Your task to perform on an android device: toggle pop-ups in chrome Image 0: 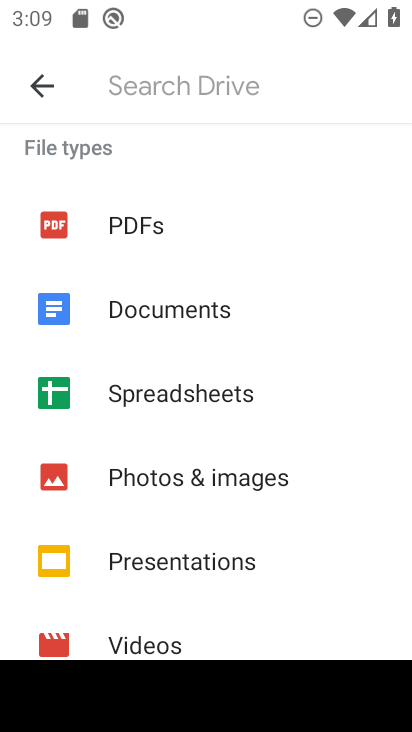
Step 0: press home button
Your task to perform on an android device: toggle pop-ups in chrome Image 1: 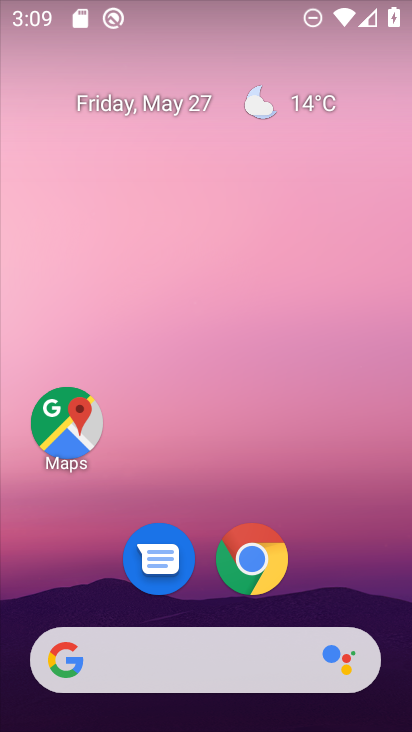
Step 1: drag from (346, 569) to (292, 134)
Your task to perform on an android device: toggle pop-ups in chrome Image 2: 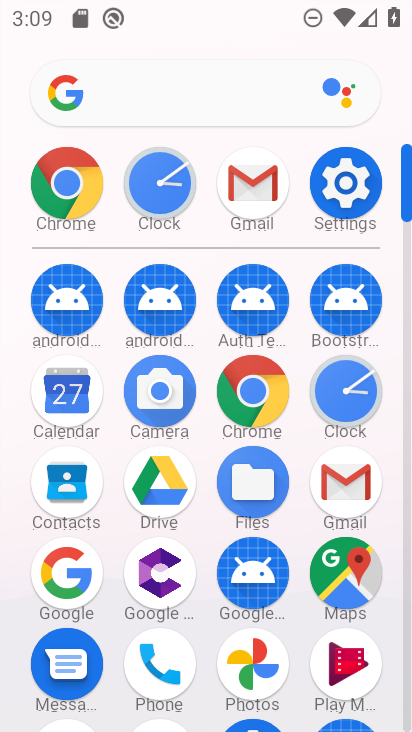
Step 2: click (61, 197)
Your task to perform on an android device: toggle pop-ups in chrome Image 3: 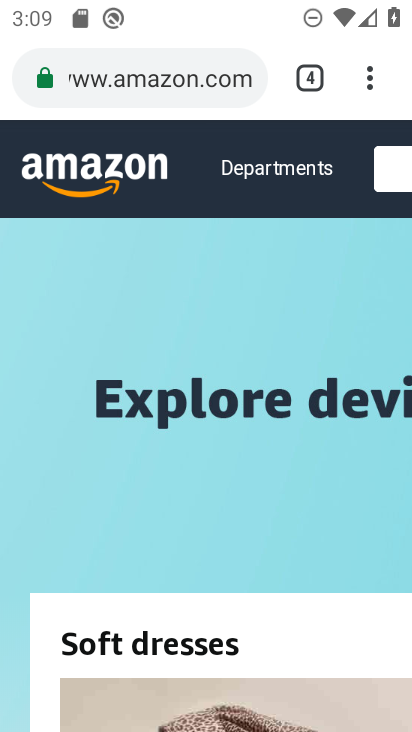
Step 3: click (364, 83)
Your task to perform on an android device: toggle pop-ups in chrome Image 4: 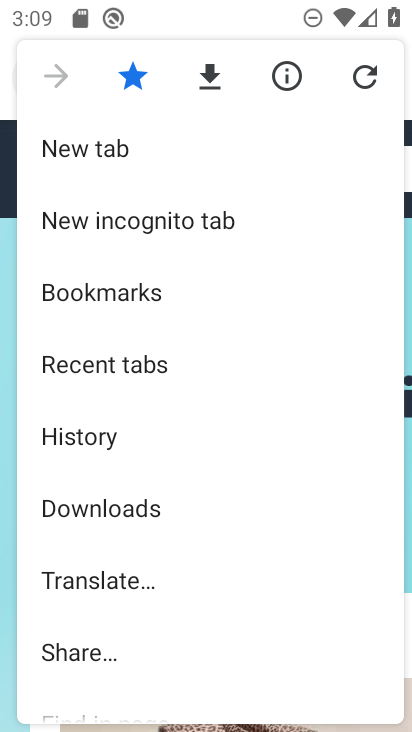
Step 4: drag from (202, 625) to (228, 234)
Your task to perform on an android device: toggle pop-ups in chrome Image 5: 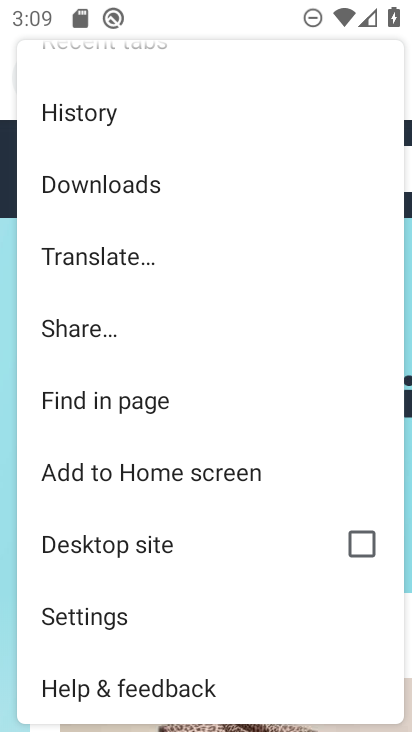
Step 5: click (86, 614)
Your task to perform on an android device: toggle pop-ups in chrome Image 6: 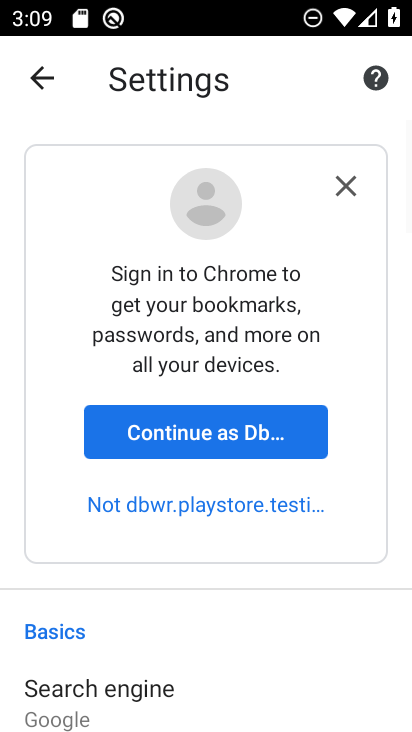
Step 6: drag from (279, 668) to (305, 116)
Your task to perform on an android device: toggle pop-ups in chrome Image 7: 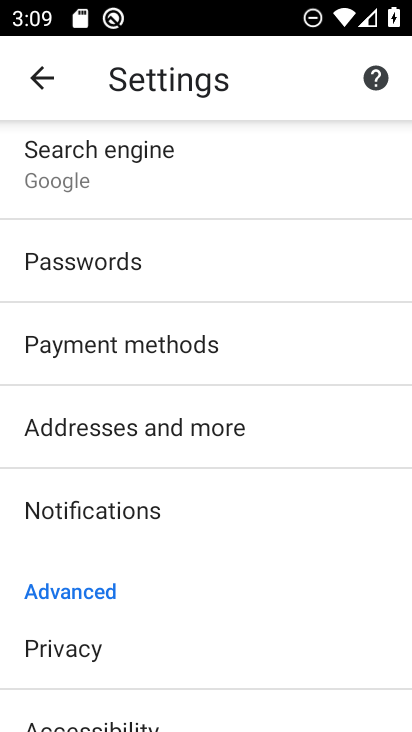
Step 7: drag from (304, 586) to (272, 141)
Your task to perform on an android device: toggle pop-ups in chrome Image 8: 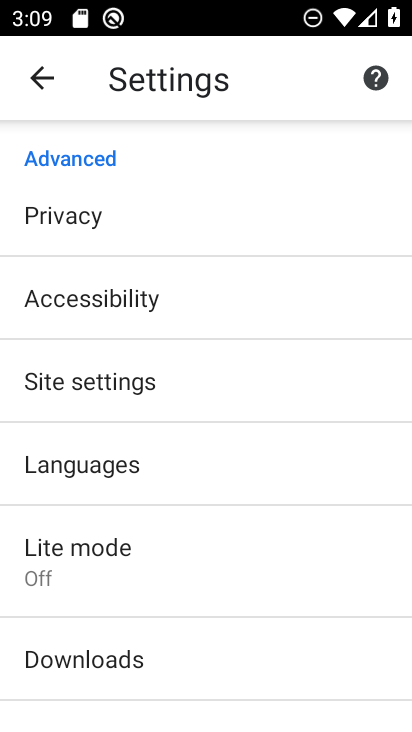
Step 8: click (168, 382)
Your task to perform on an android device: toggle pop-ups in chrome Image 9: 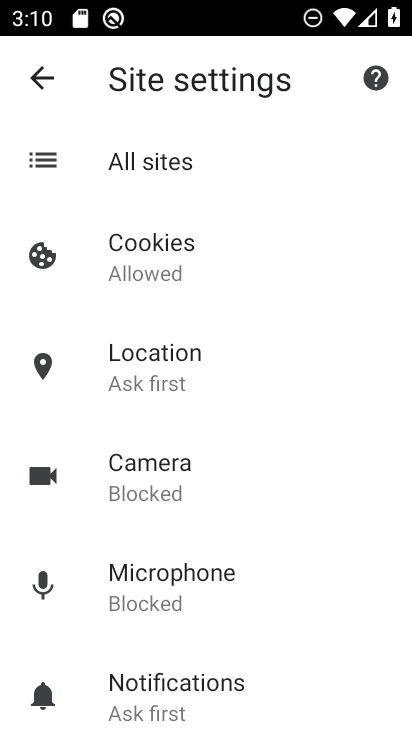
Step 9: drag from (312, 485) to (299, 201)
Your task to perform on an android device: toggle pop-ups in chrome Image 10: 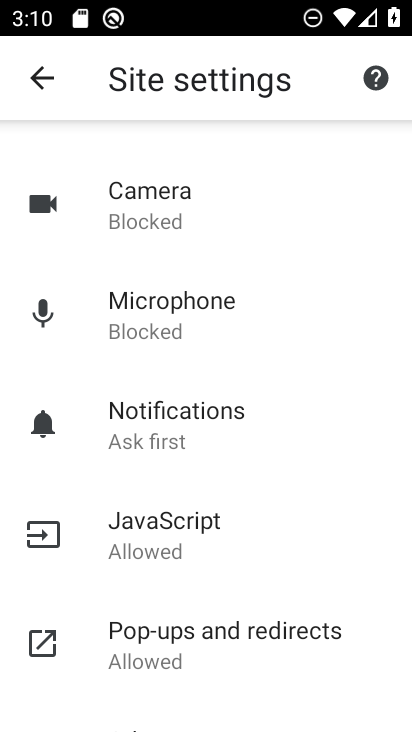
Step 10: drag from (288, 530) to (283, 219)
Your task to perform on an android device: toggle pop-ups in chrome Image 11: 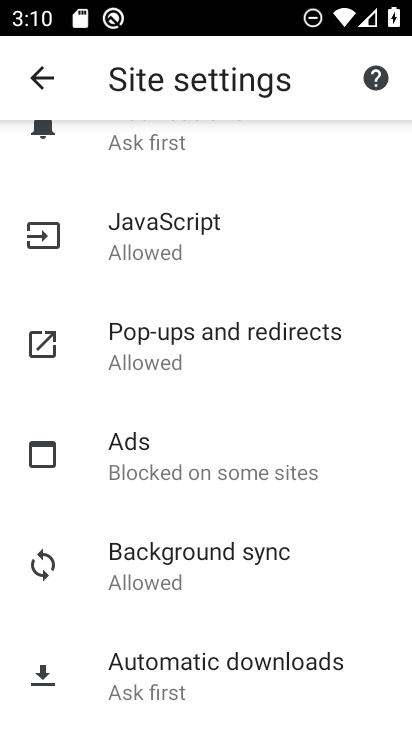
Step 11: click (199, 349)
Your task to perform on an android device: toggle pop-ups in chrome Image 12: 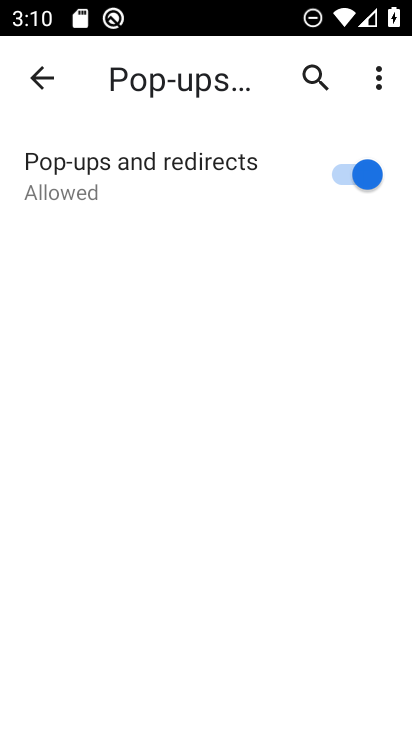
Step 12: click (351, 179)
Your task to perform on an android device: toggle pop-ups in chrome Image 13: 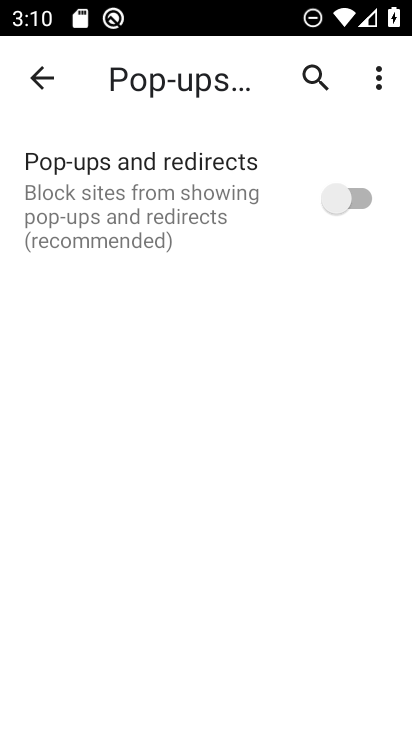
Step 13: task complete